Your task to perform on an android device: empty trash in google photos Image 0: 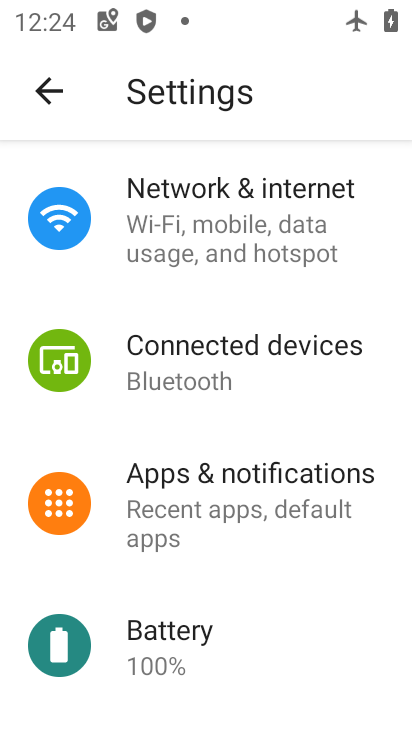
Step 0: drag from (287, 258) to (230, 683)
Your task to perform on an android device: empty trash in google photos Image 1: 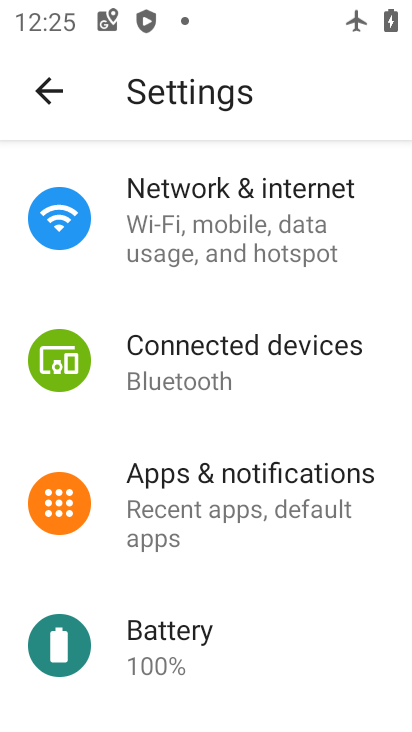
Step 1: press home button
Your task to perform on an android device: empty trash in google photos Image 2: 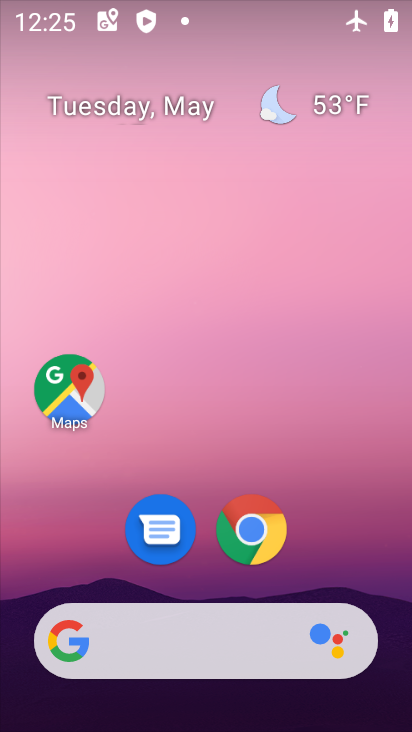
Step 2: drag from (201, 729) to (183, 267)
Your task to perform on an android device: empty trash in google photos Image 3: 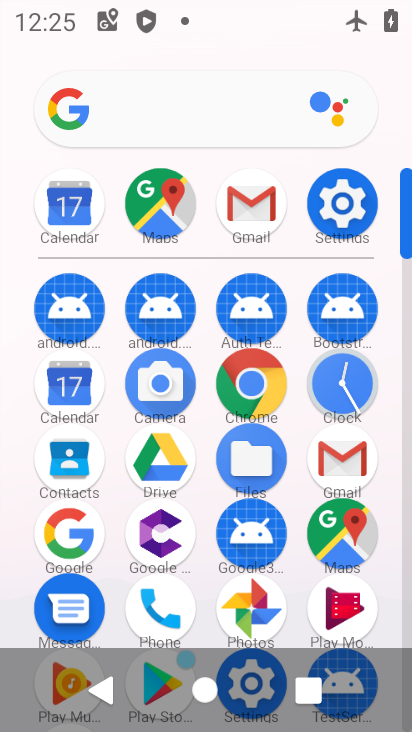
Step 3: click (247, 627)
Your task to perform on an android device: empty trash in google photos Image 4: 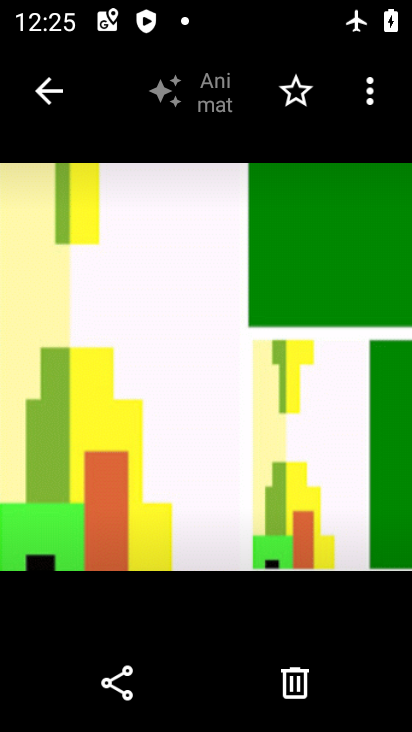
Step 4: click (48, 93)
Your task to perform on an android device: empty trash in google photos Image 5: 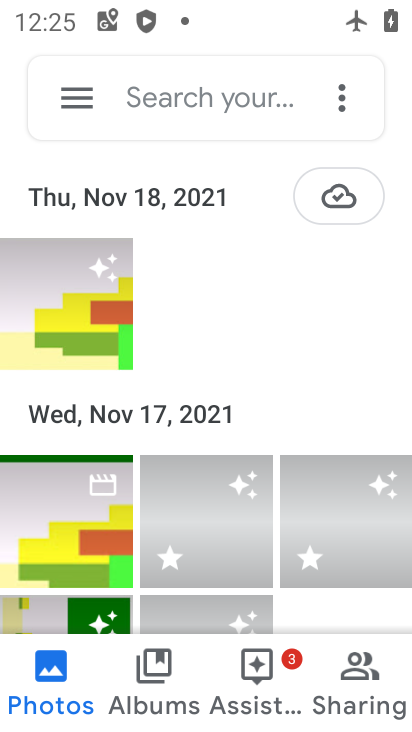
Step 5: click (77, 93)
Your task to perform on an android device: empty trash in google photos Image 6: 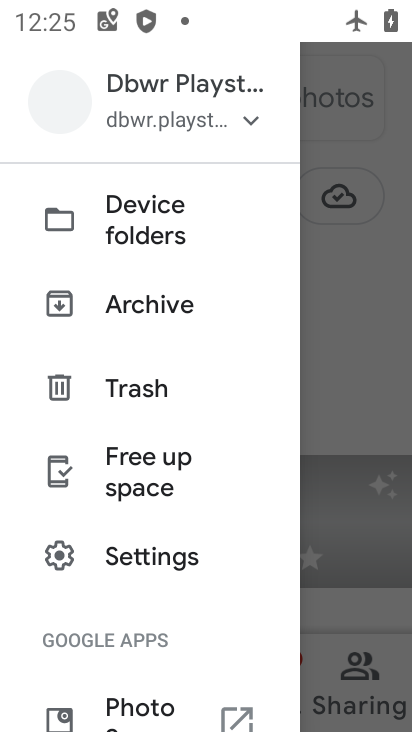
Step 6: click (116, 389)
Your task to perform on an android device: empty trash in google photos Image 7: 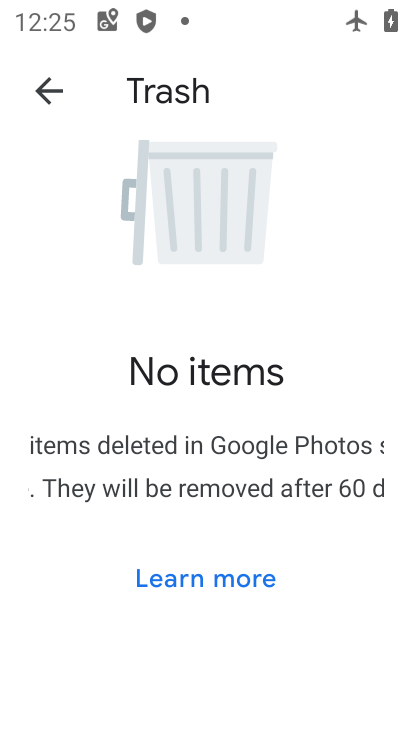
Step 7: task complete